Your task to perform on an android device: Open Android settings Image 0: 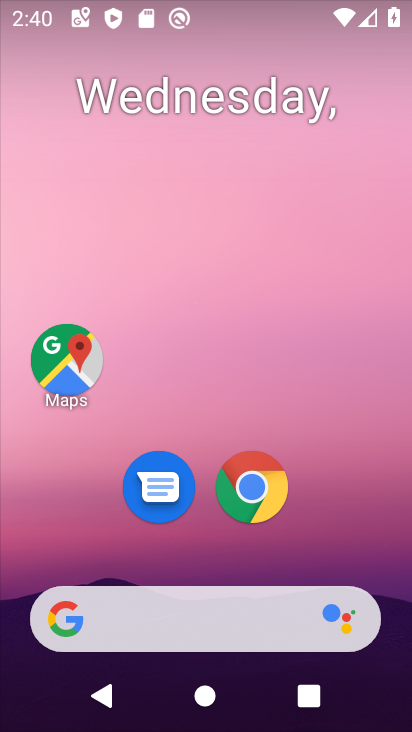
Step 0: drag from (325, 491) to (234, 7)
Your task to perform on an android device: Open Android settings Image 1: 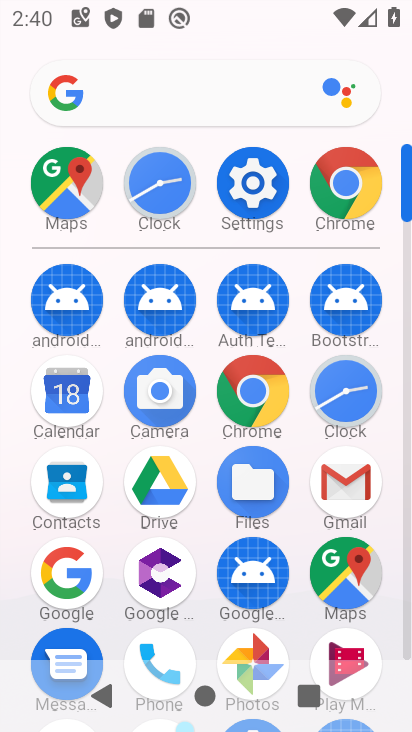
Step 1: click (249, 171)
Your task to perform on an android device: Open Android settings Image 2: 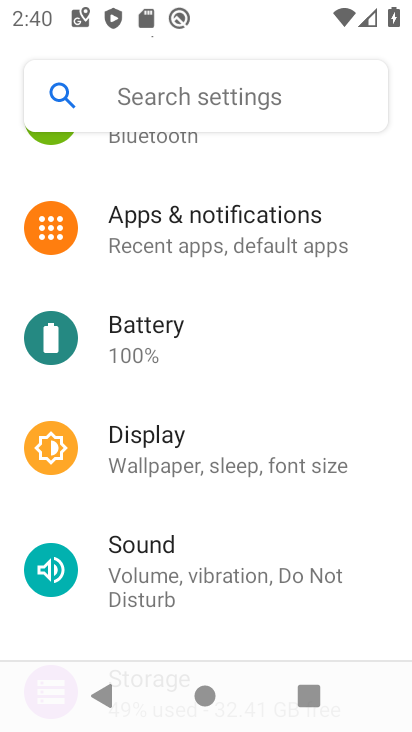
Step 2: task complete